Your task to perform on an android device: Open Amazon Image 0: 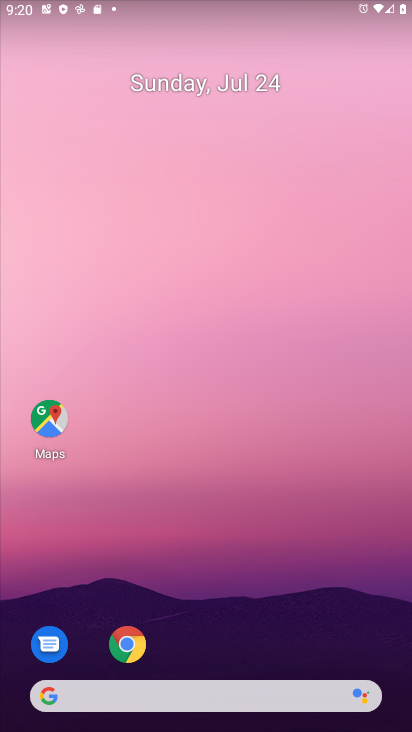
Step 0: drag from (301, 695) to (251, 448)
Your task to perform on an android device: Open Amazon Image 1: 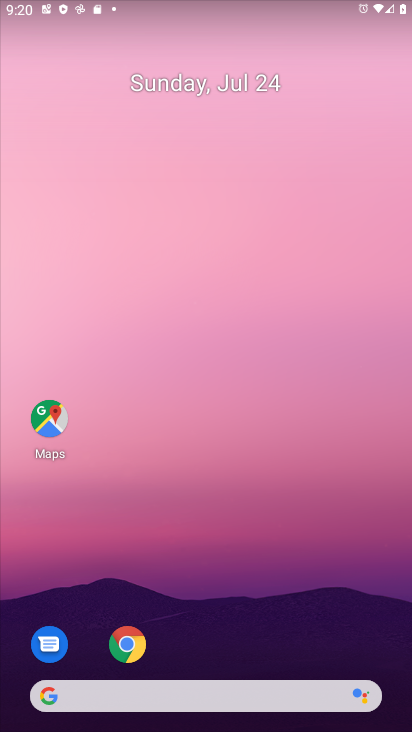
Step 1: drag from (352, 600) to (254, 144)
Your task to perform on an android device: Open Amazon Image 2: 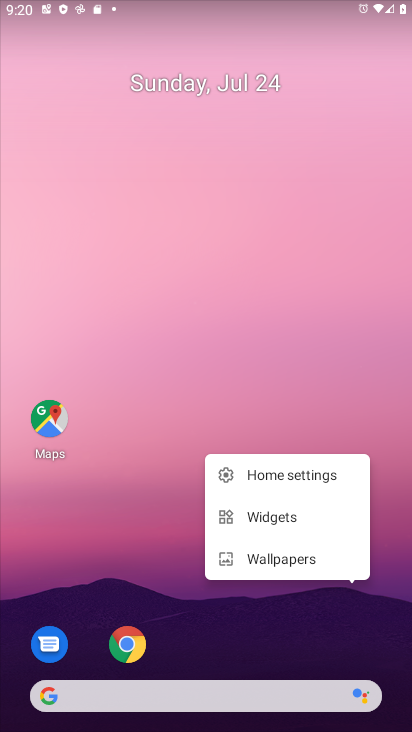
Step 2: drag from (283, 589) to (238, 143)
Your task to perform on an android device: Open Amazon Image 3: 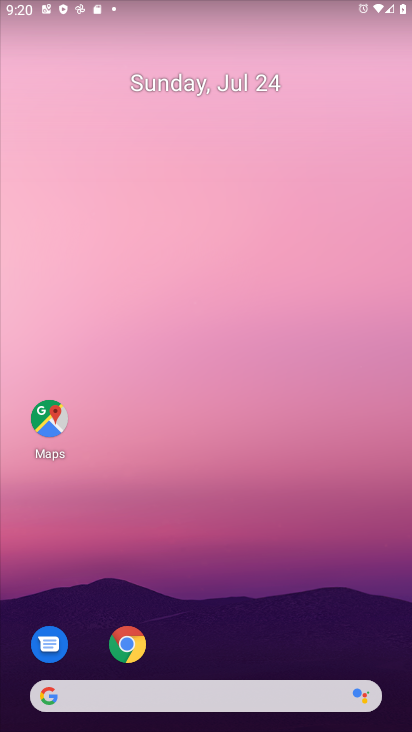
Step 3: drag from (163, 682) to (110, 186)
Your task to perform on an android device: Open Amazon Image 4: 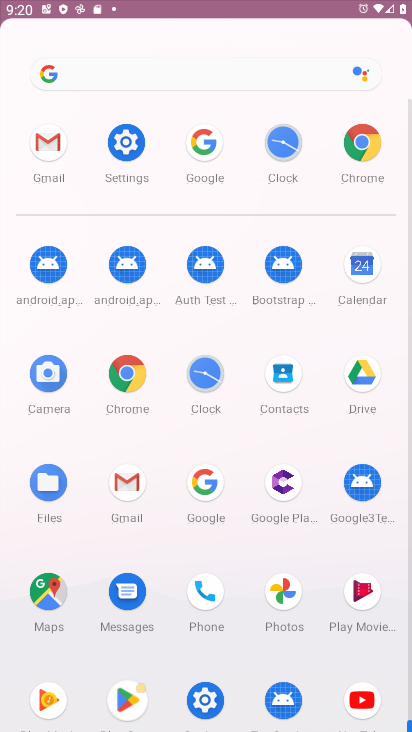
Step 4: drag from (216, 403) to (186, 67)
Your task to perform on an android device: Open Amazon Image 5: 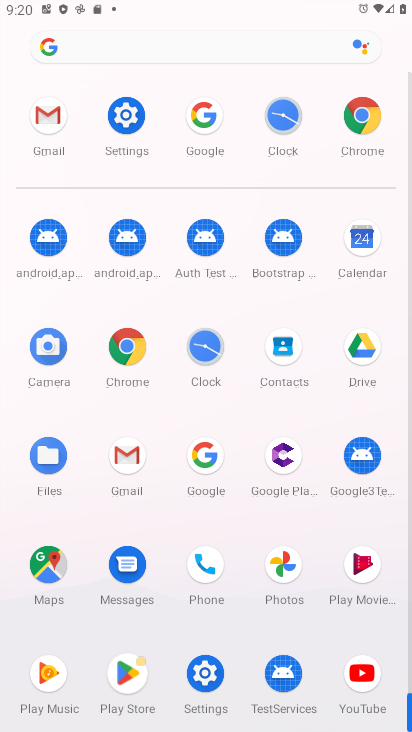
Step 5: drag from (265, 363) to (260, 179)
Your task to perform on an android device: Open Amazon Image 6: 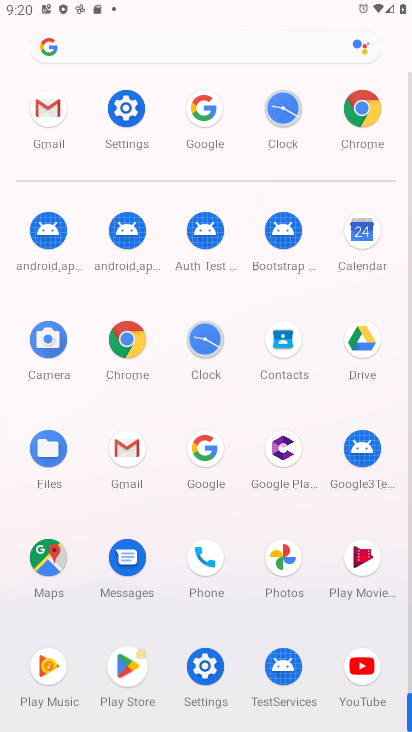
Step 6: click (368, 101)
Your task to perform on an android device: Open Amazon Image 7: 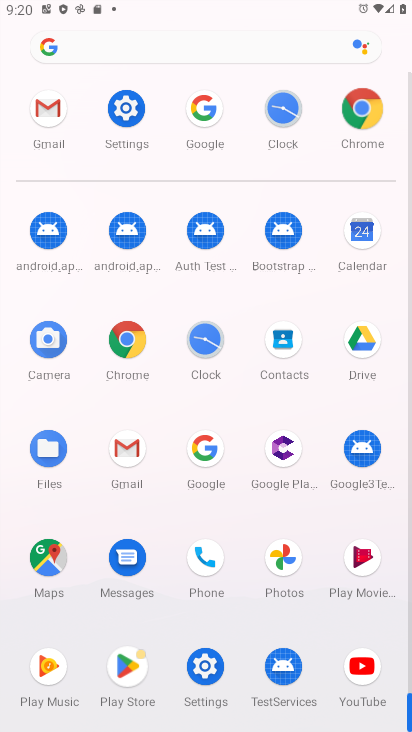
Step 7: click (363, 107)
Your task to perform on an android device: Open Amazon Image 8: 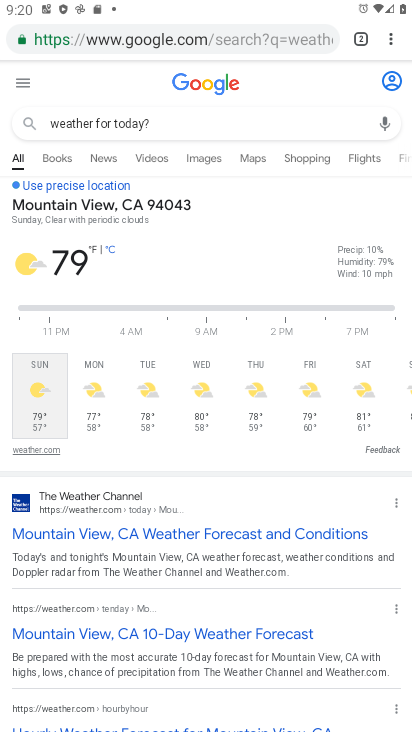
Step 8: press back button
Your task to perform on an android device: Open Amazon Image 9: 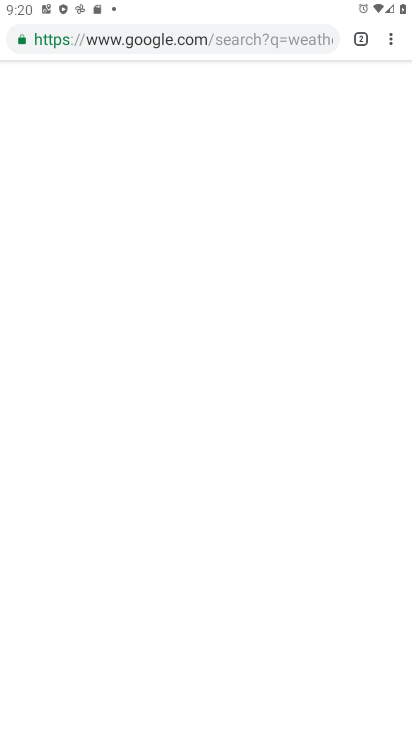
Step 9: press back button
Your task to perform on an android device: Open Amazon Image 10: 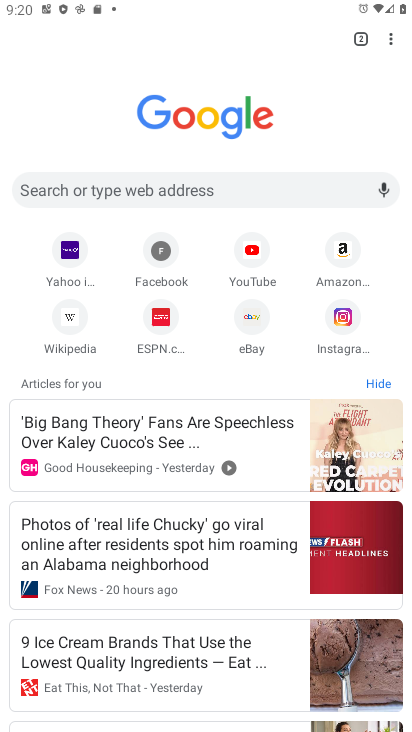
Step 10: press back button
Your task to perform on an android device: Open Amazon Image 11: 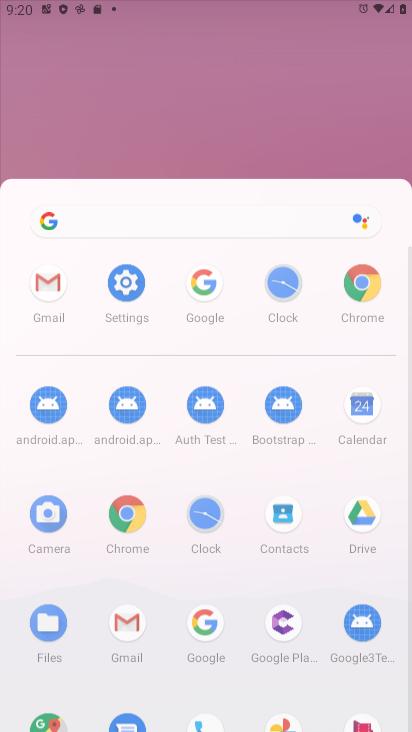
Step 11: press back button
Your task to perform on an android device: Open Amazon Image 12: 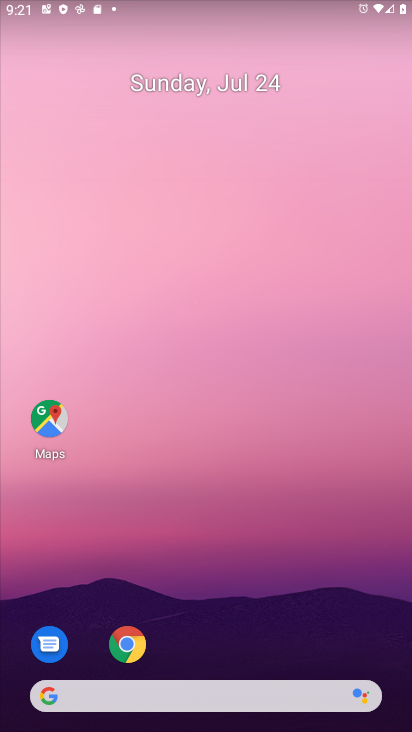
Step 12: drag from (210, 634) to (245, 8)
Your task to perform on an android device: Open Amazon Image 13: 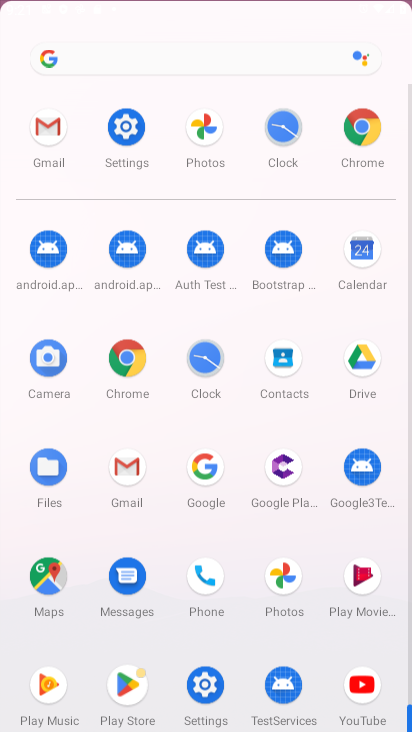
Step 13: drag from (308, 487) to (308, 380)
Your task to perform on an android device: Open Amazon Image 14: 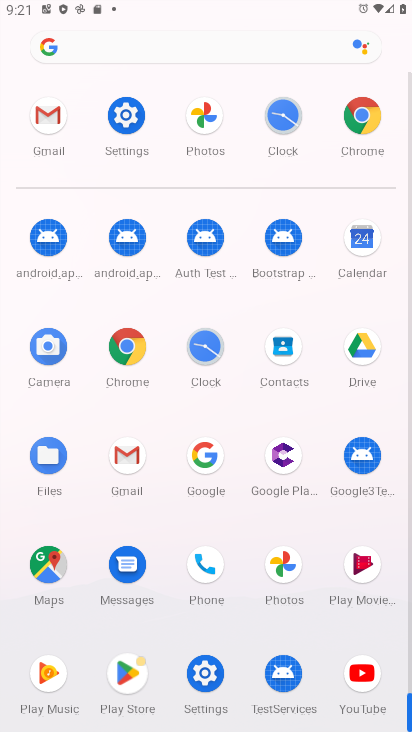
Step 14: click (378, 116)
Your task to perform on an android device: Open Amazon Image 15: 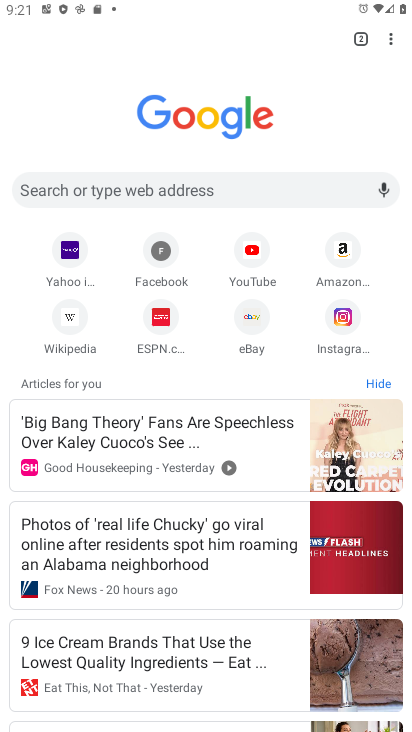
Step 15: click (342, 261)
Your task to perform on an android device: Open Amazon Image 16: 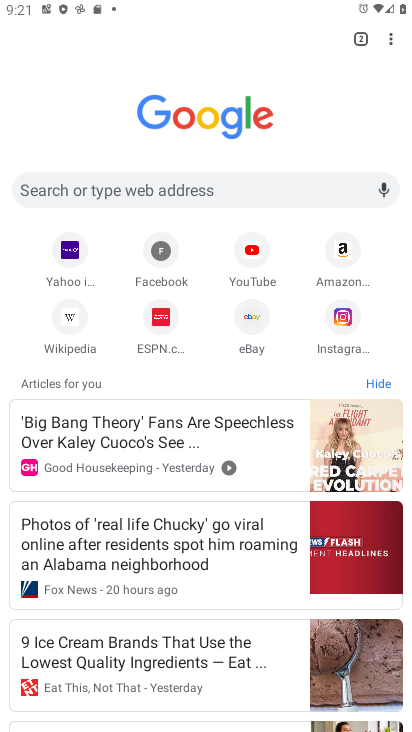
Step 16: click (342, 257)
Your task to perform on an android device: Open Amazon Image 17: 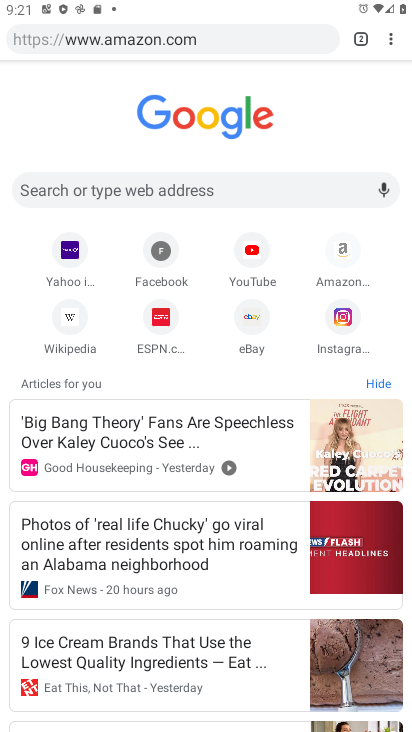
Step 17: click (340, 253)
Your task to perform on an android device: Open Amazon Image 18: 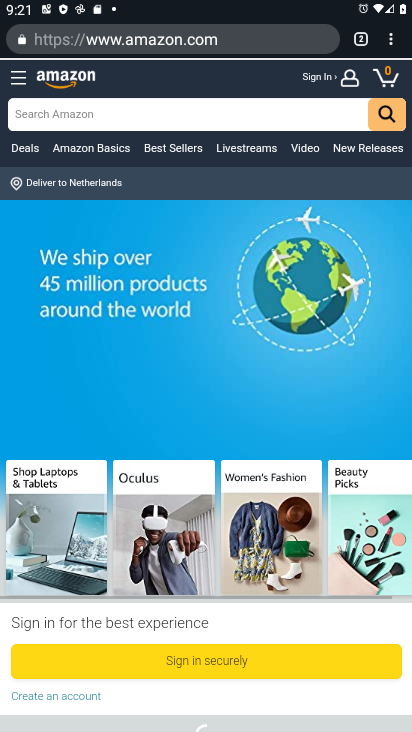
Step 18: task complete